Your task to perform on an android device: Open Maps and search for coffee Image 0: 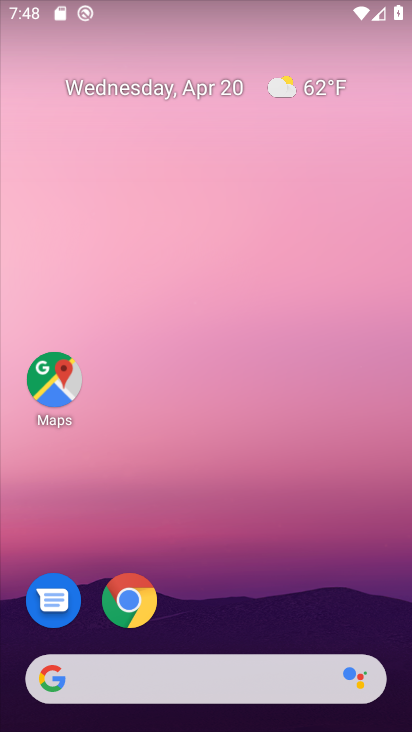
Step 0: click (59, 381)
Your task to perform on an android device: Open Maps and search for coffee Image 1: 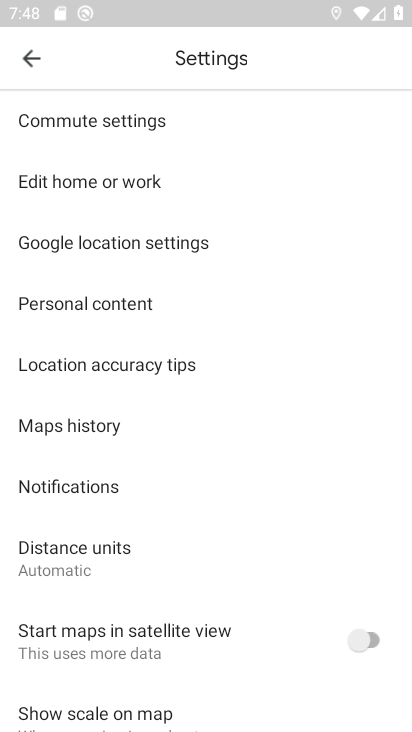
Step 1: click (29, 59)
Your task to perform on an android device: Open Maps and search for coffee Image 2: 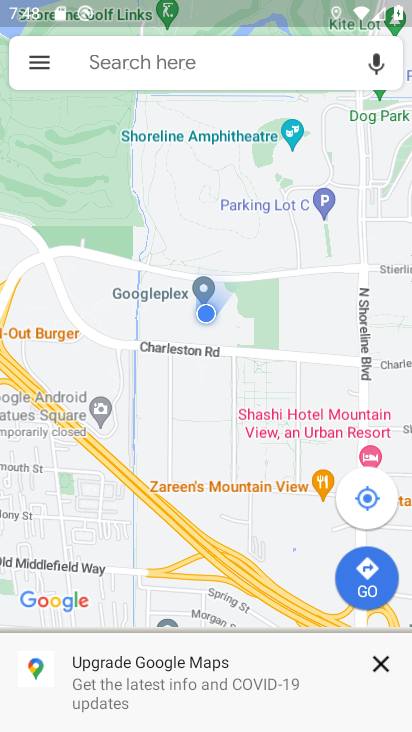
Step 2: click (142, 66)
Your task to perform on an android device: Open Maps and search for coffee Image 3: 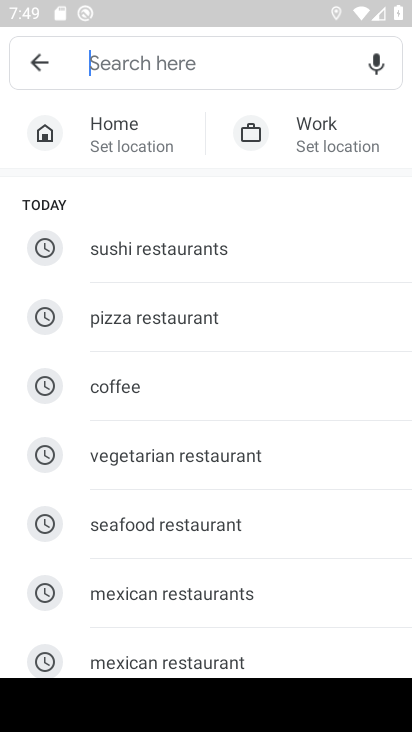
Step 3: click (157, 385)
Your task to perform on an android device: Open Maps and search for coffee Image 4: 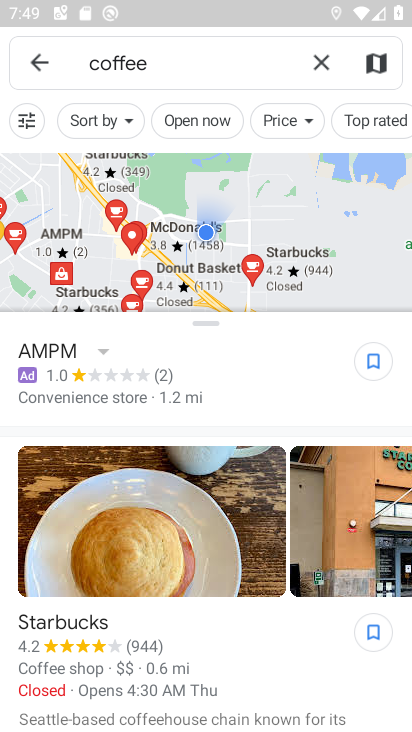
Step 4: task complete